Your task to perform on an android device: turn on showing notifications on the lock screen Image 0: 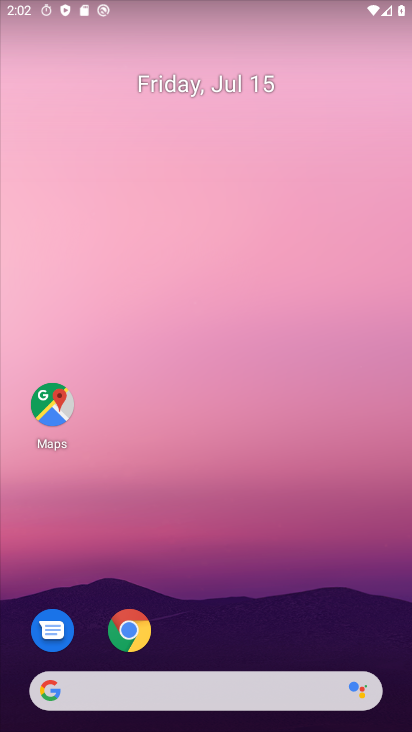
Step 0: drag from (211, 619) to (211, 97)
Your task to perform on an android device: turn on showing notifications on the lock screen Image 1: 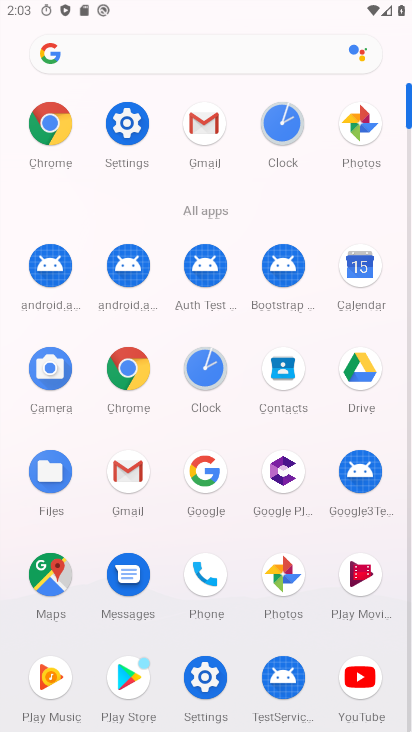
Step 1: click (115, 129)
Your task to perform on an android device: turn on showing notifications on the lock screen Image 2: 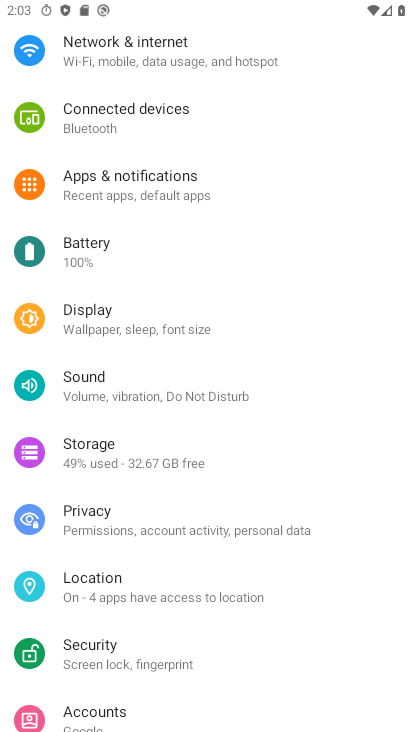
Step 2: click (170, 310)
Your task to perform on an android device: turn on showing notifications on the lock screen Image 3: 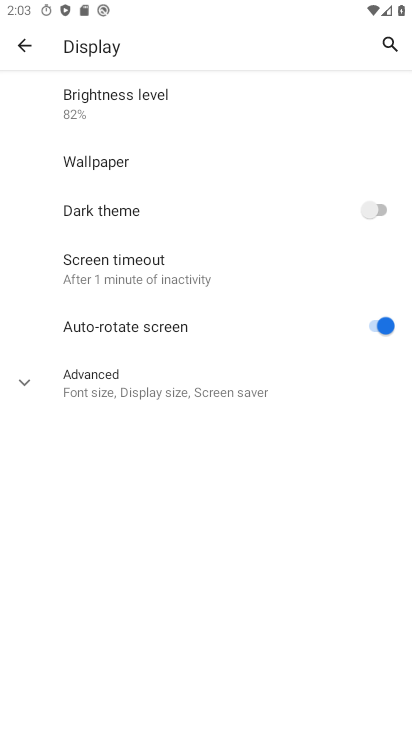
Step 3: click (20, 37)
Your task to perform on an android device: turn on showing notifications on the lock screen Image 4: 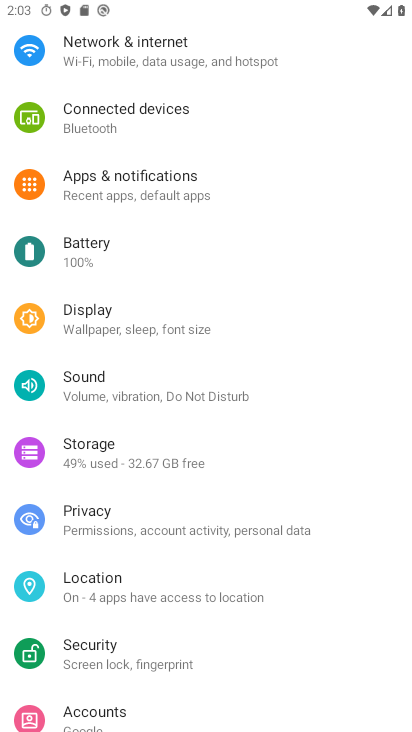
Step 4: click (157, 188)
Your task to perform on an android device: turn on showing notifications on the lock screen Image 5: 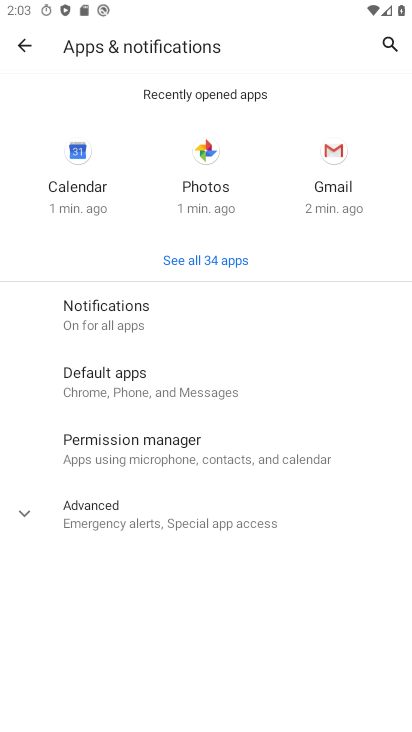
Step 5: click (138, 301)
Your task to perform on an android device: turn on showing notifications on the lock screen Image 6: 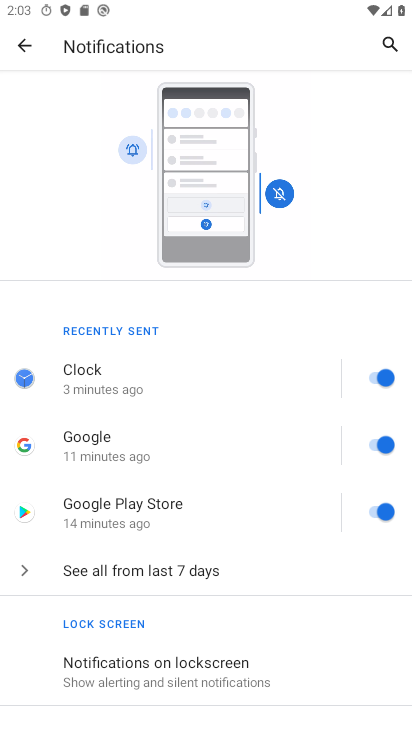
Step 6: drag from (237, 588) to (225, 334)
Your task to perform on an android device: turn on showing notifications on the lock screen Image 7: 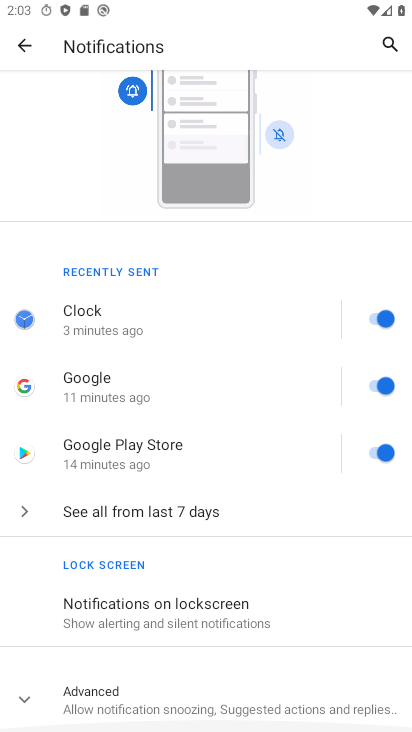
Step 7: click (200, 605)
Your task to perform on an android device: turn on showing notifications on the lock screen Image 8: 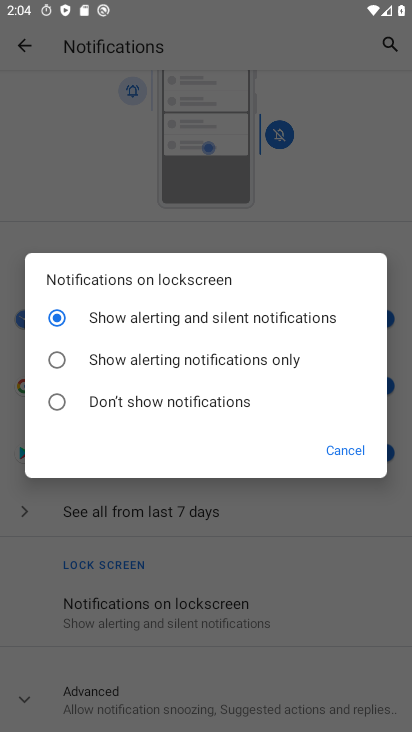
Step 8: task complete